Your task to perform on an android device: Search for sushi restaurants on Maps Image 0: 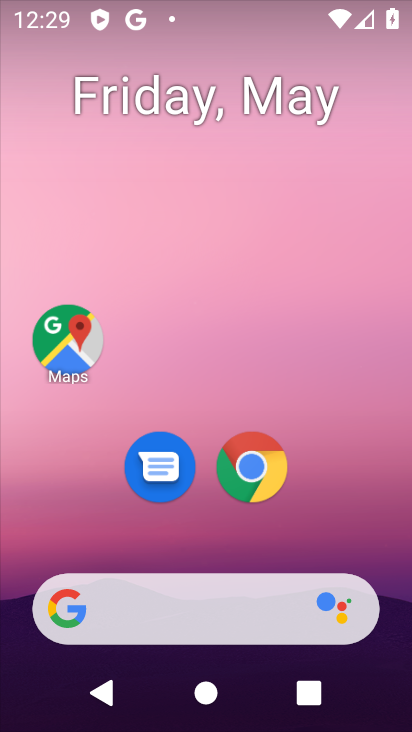
Step 0: click (69, 340)
Your task to perform on an android device: Search for sushi restaurants on Maps Image 1: 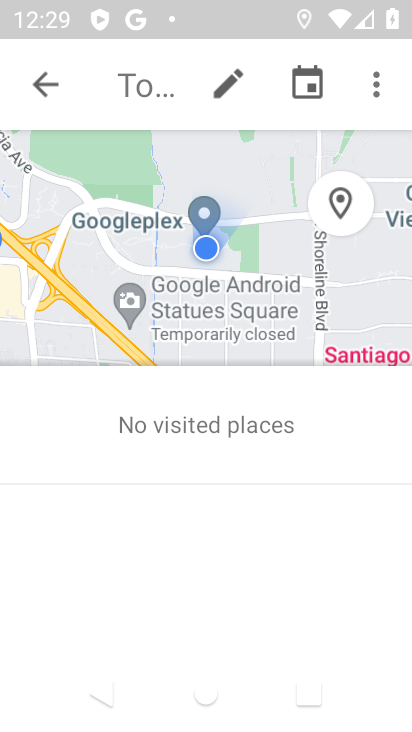
Step 1: press back button
Your task to perform on an android device: Search for sushi restaurants on Maps Image 2: 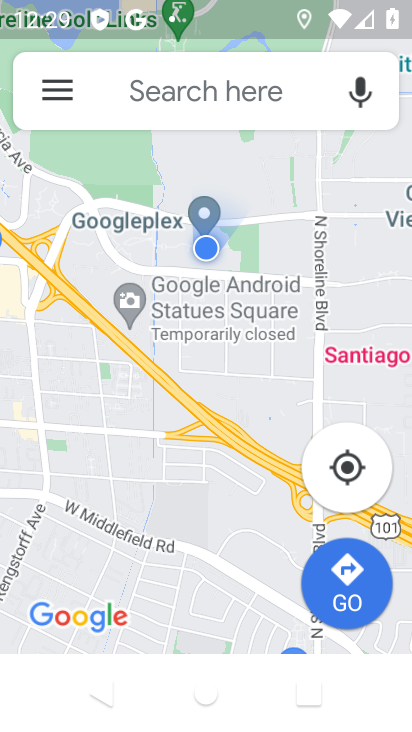
Step 2: click (189, 101)
Your task to perform on an android device: Search for sushi restaurants on Maps Image 3: 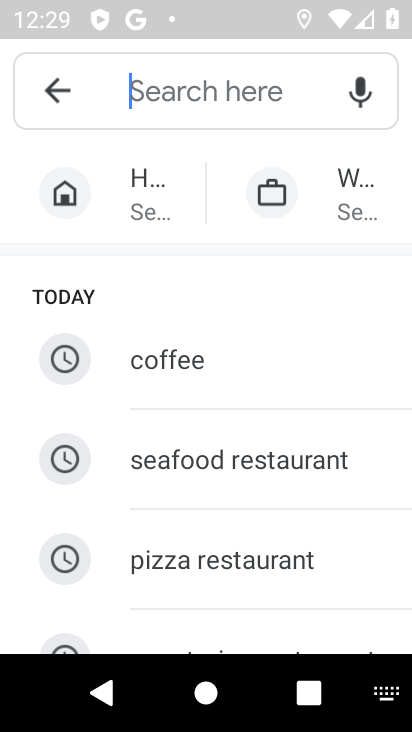
Step 3: type "sushi restaurants"
Your task to perform on an android device: Search for sushi restaurants on Maps Image 4: 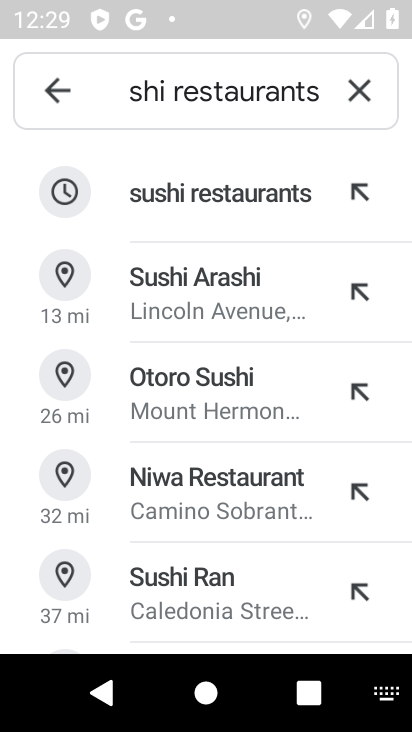
Step 4: click (229, 191)
Your task to perform on an android device: Search for sushi restaurants on Maps Image 5: 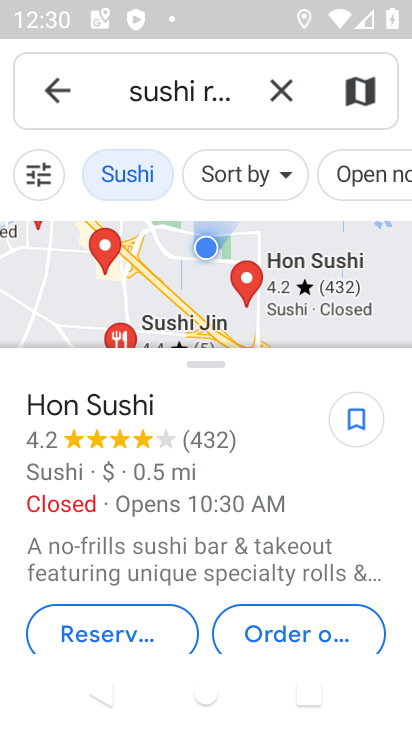
Step 5: task complete